Your task to perform on an android device: turn off javascript in the chrome app Image 0: 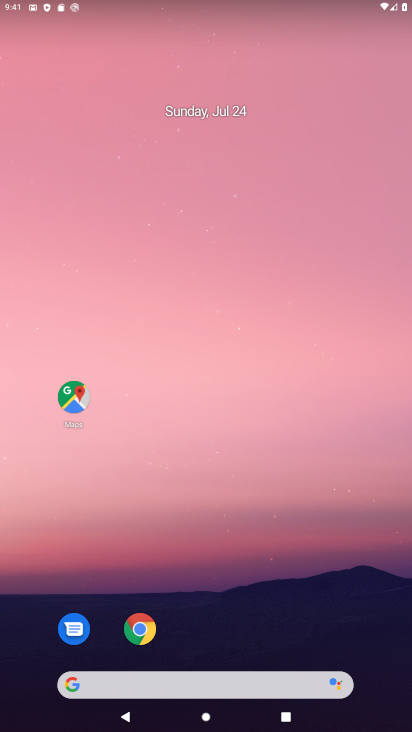
Step 0: click (142, 630)
Your task to perform on an android device: turn off javascript in the chrome app Image 1: 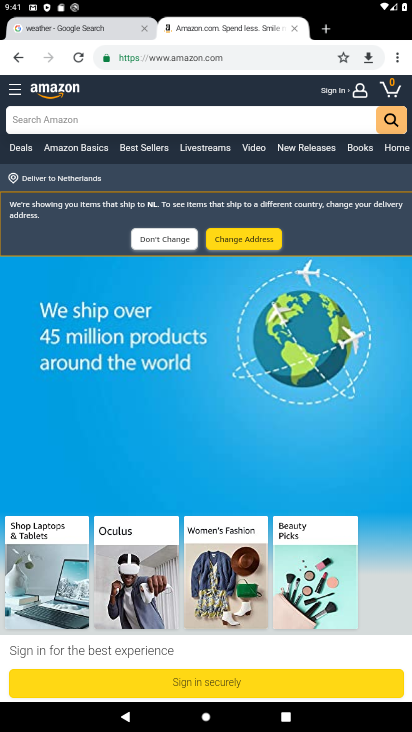
Step 1: click (398, 58)
Your task to perform on an android device: turn off javascript in the chrome app Image 2: 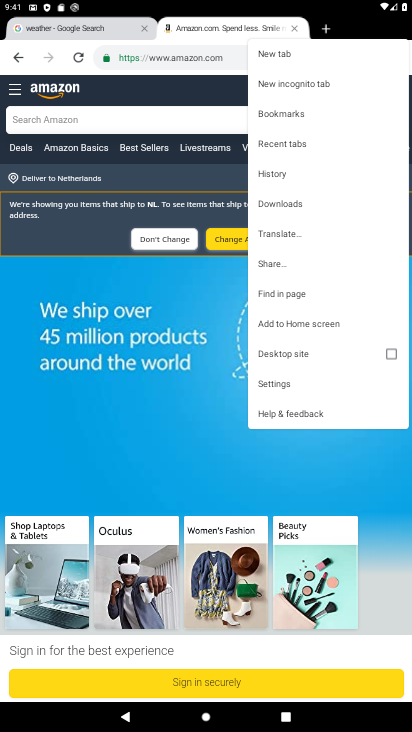
Step 2: click (279, 381)
Your task to perform on an android device: turn off javascript in the chrome app Image 3: 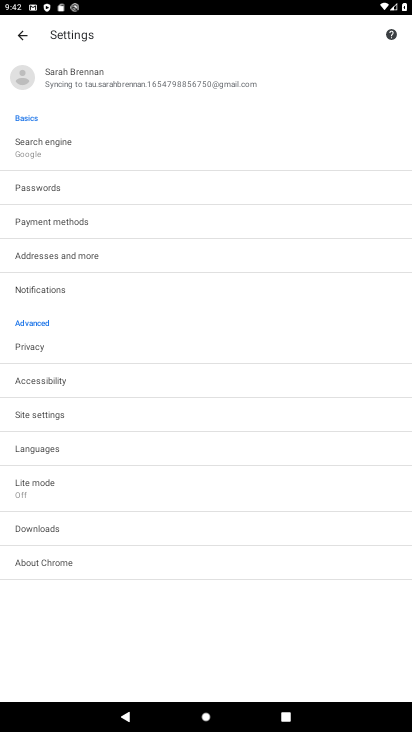
Step 3: click (32, 412)
Your task to perform on an android device: turn off javascript in the chrome app Image 4: 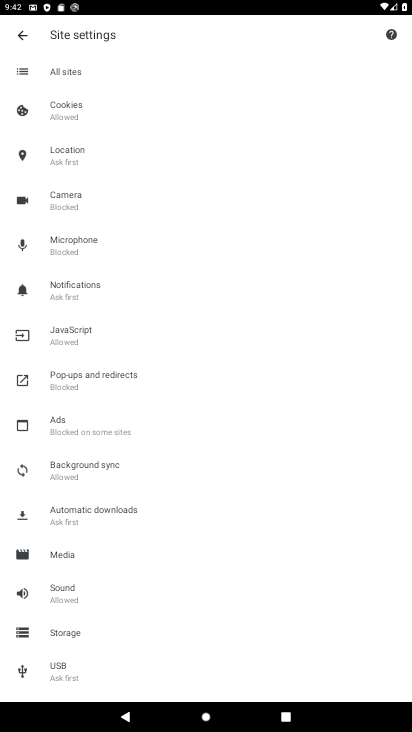
Step 4: click (68, 331)
Your task to perform on an android device: turn off javascript in the chrome app Image 5: 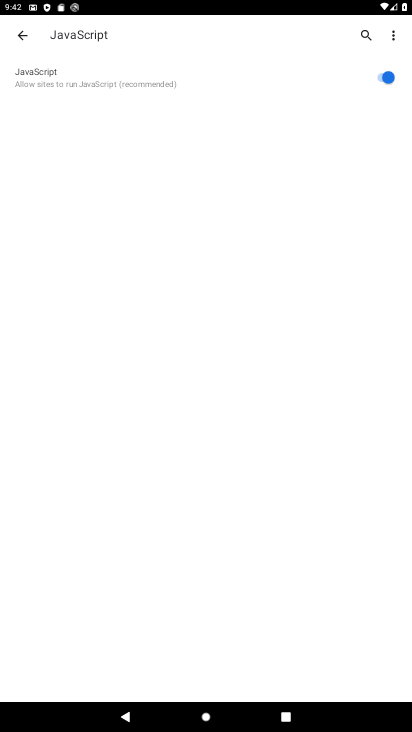
Step 5: click (380, 74)
Your task to perform on an android device: turn off javascript in the chrome app Image 6: 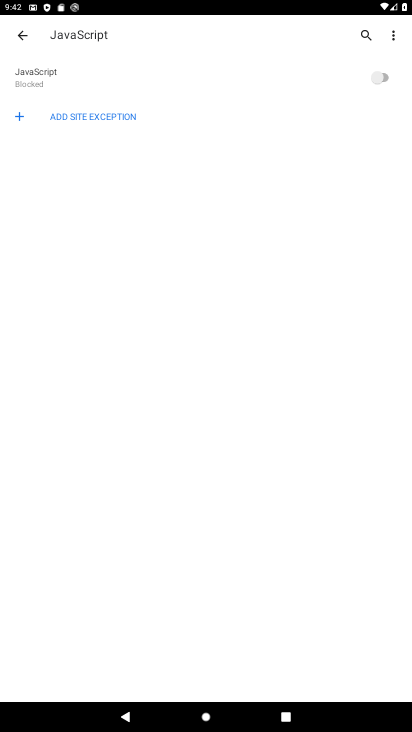
Step 6: task complete